Your task to perform on an android device: Go to Wikipedia Image 0: 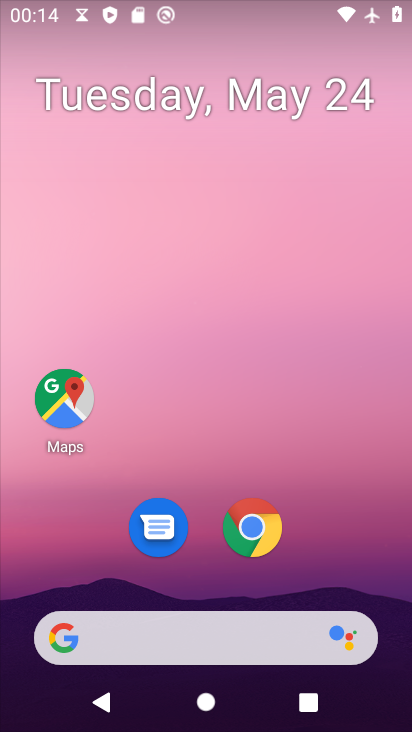
Step 0: press home button
Your task to perform on an android device: Go to Wikipedia Image 1: 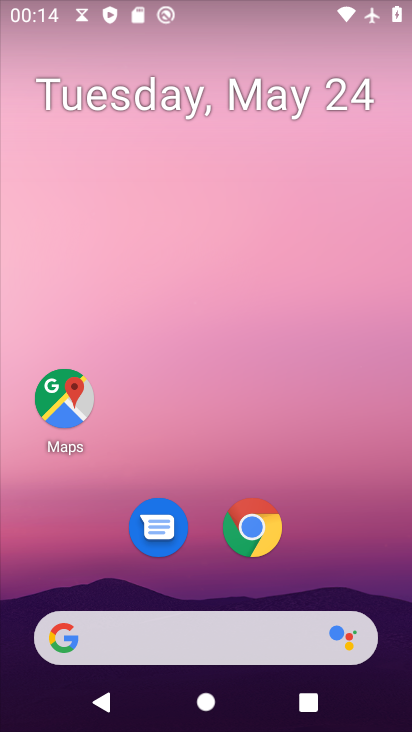
Step 1: click (246, 542)
Your task to perform on an android device: Go to Wikipedia Image 2: 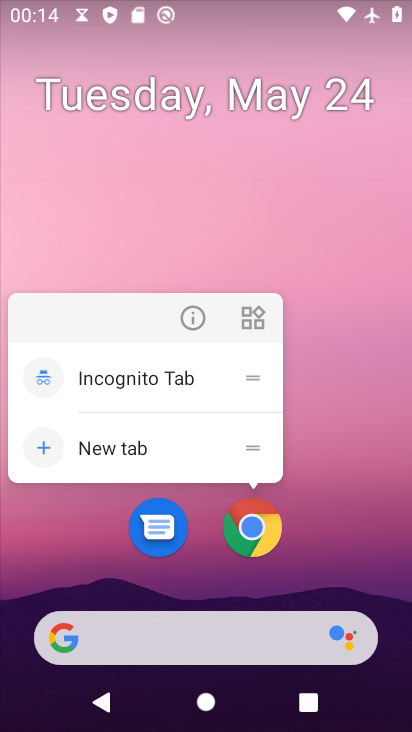
Step 2: click (243, 525)
Your task to perform on an android device: Go to Wikipedia Image 3: 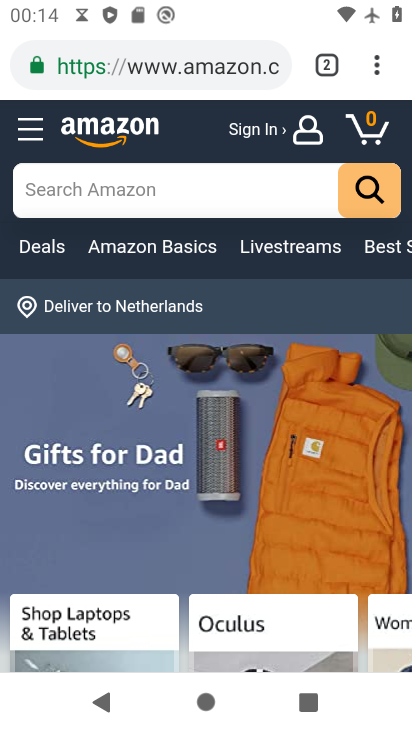
Step 3: drag from (375, 73) to (269, 133)
Your task to perform on an android device: Go to Wikipedia Image 4: 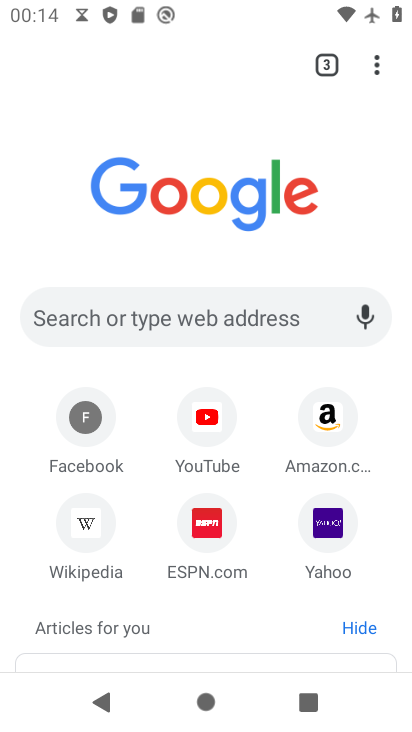
Step 4: click (90, 528)
Your task to perform on an android device: Go to Wikipedia Image 5: 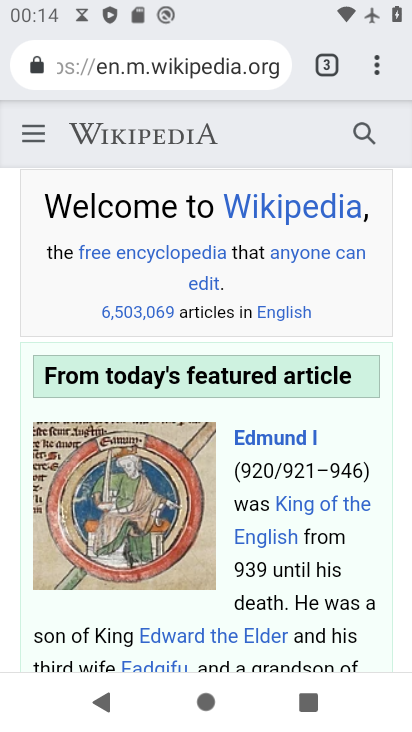
Step 5: task complete